Your task to perform on an android device: Go to eBay Image 0: 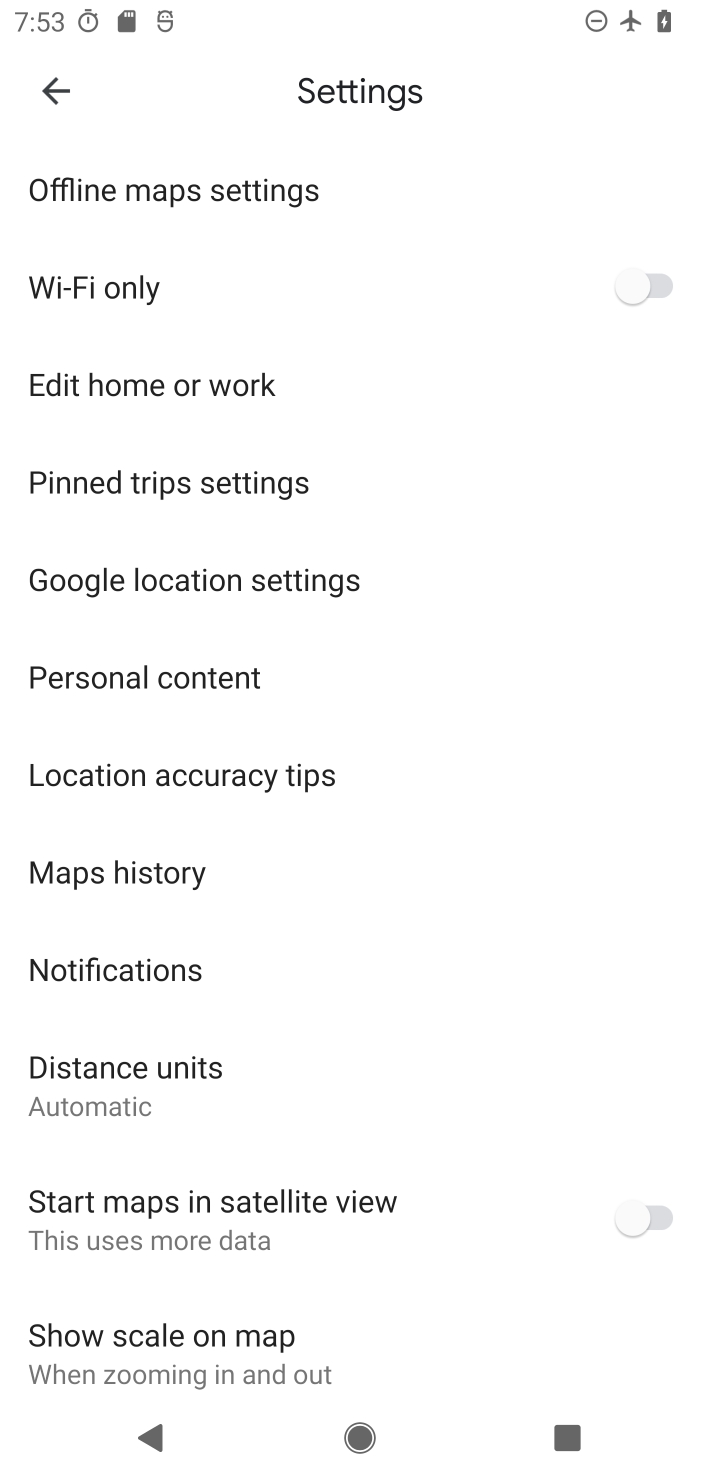
Step 0: press home button
Your task to perform on an android device: Go to eBay Image 1: 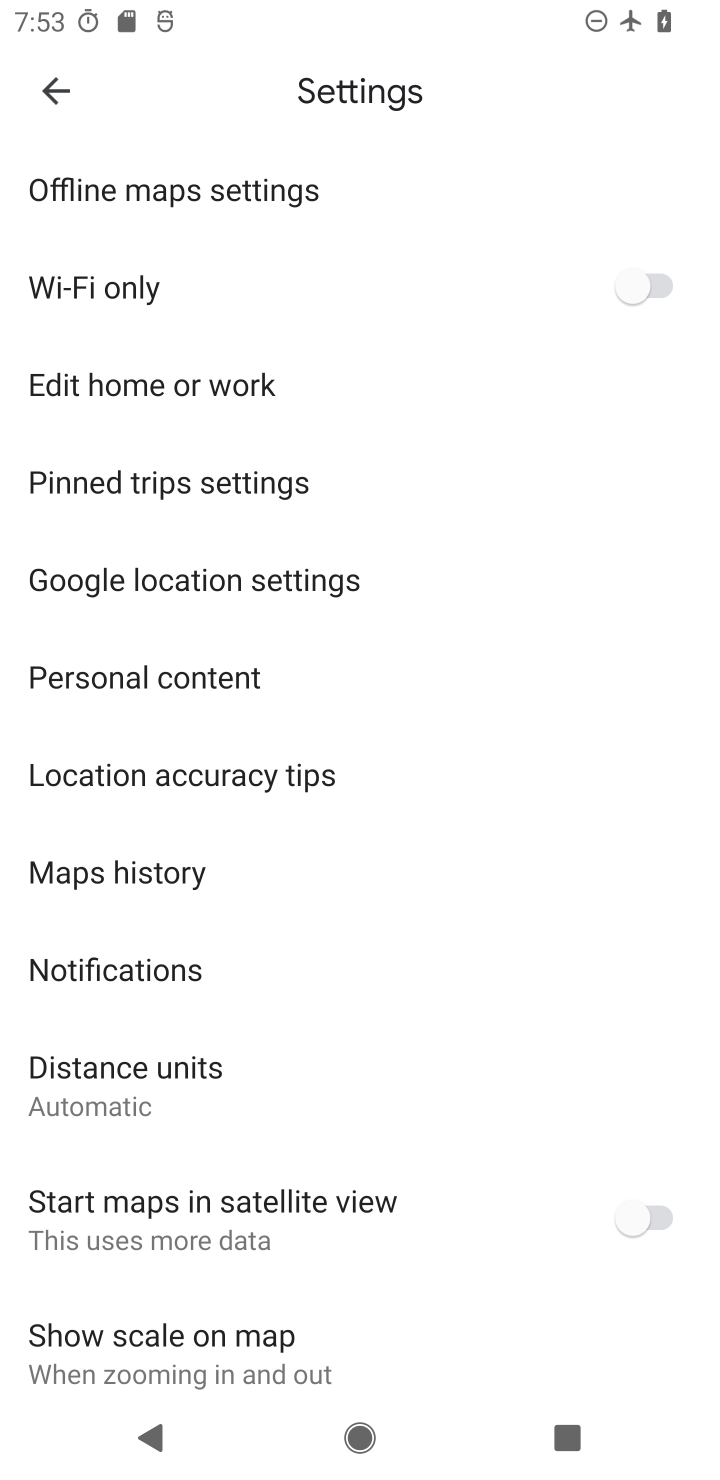
Step 1: press home button
Your task to perform on an android device: Go to eBay Image 2: 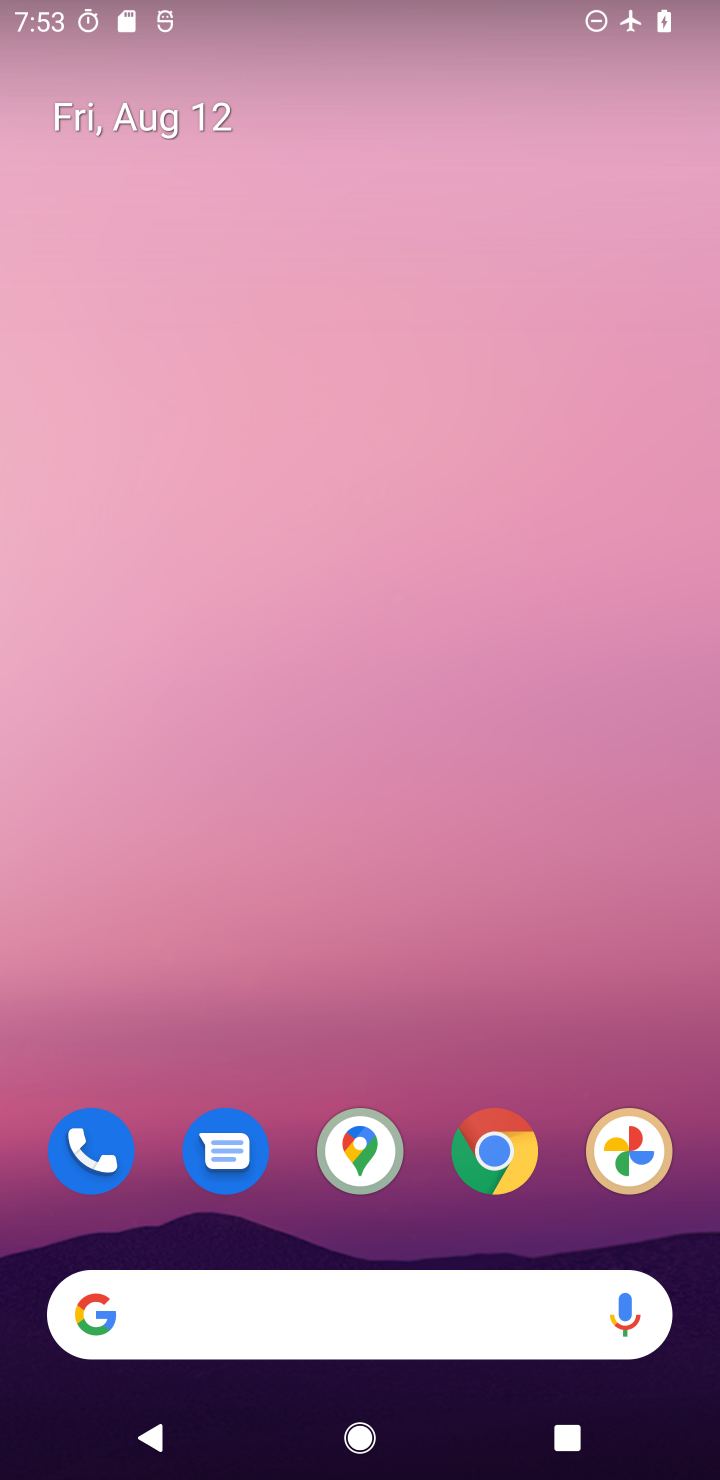
Step 2: drag from (426, 892) to (488, 54)
Your task to perform on an android device: Go to eBay Image 3: 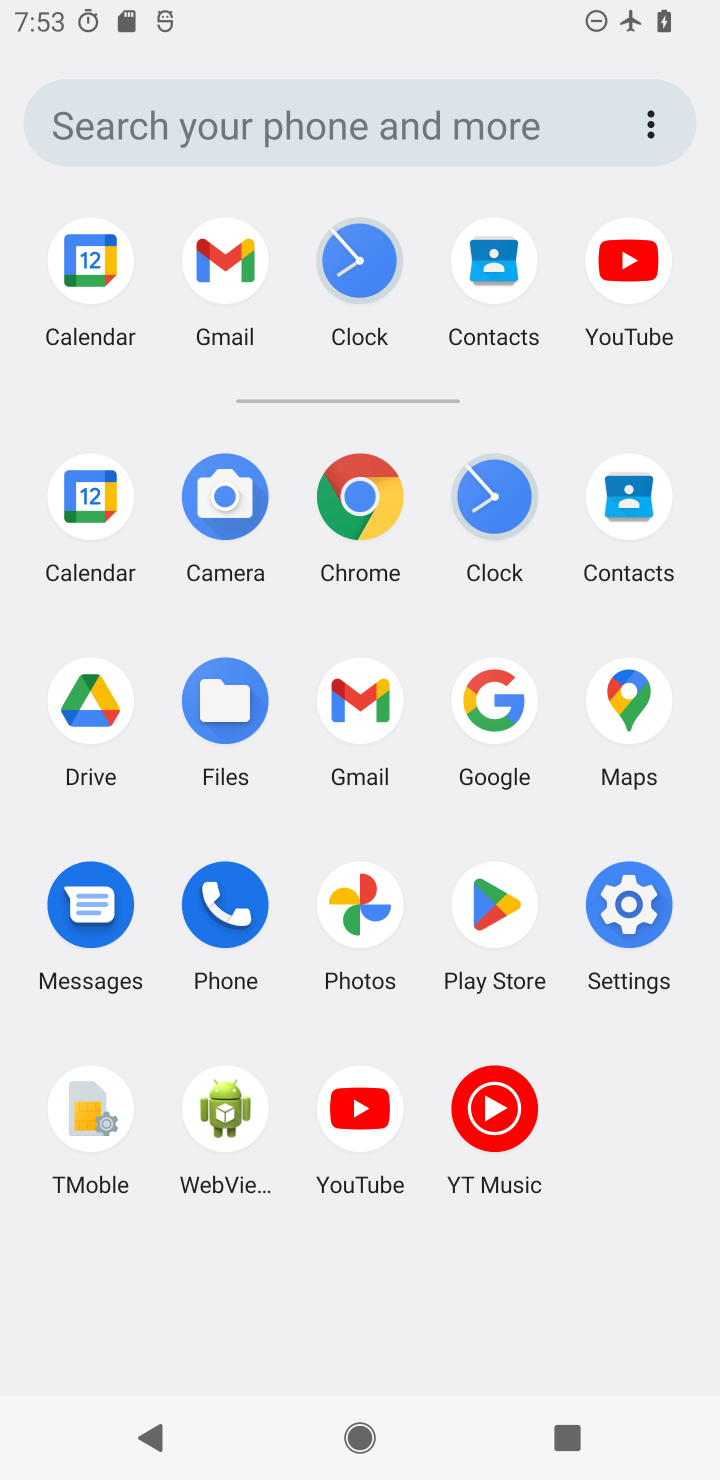
Step 3: click (366, 499)
Your task to perform on an android device: Go to eBay Image 4: 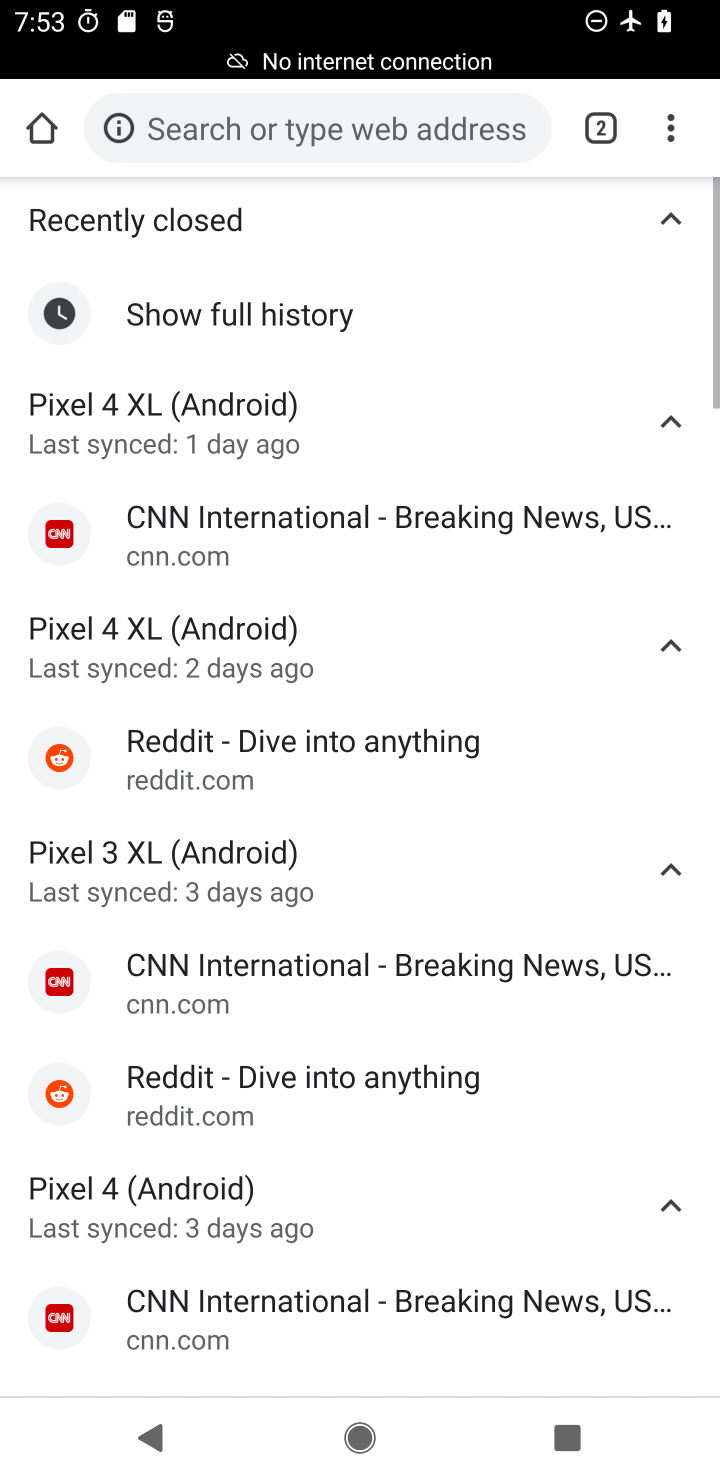
Step 4: click (401, 116)
Your task to perform on an android device: Go to eBay Image 5: 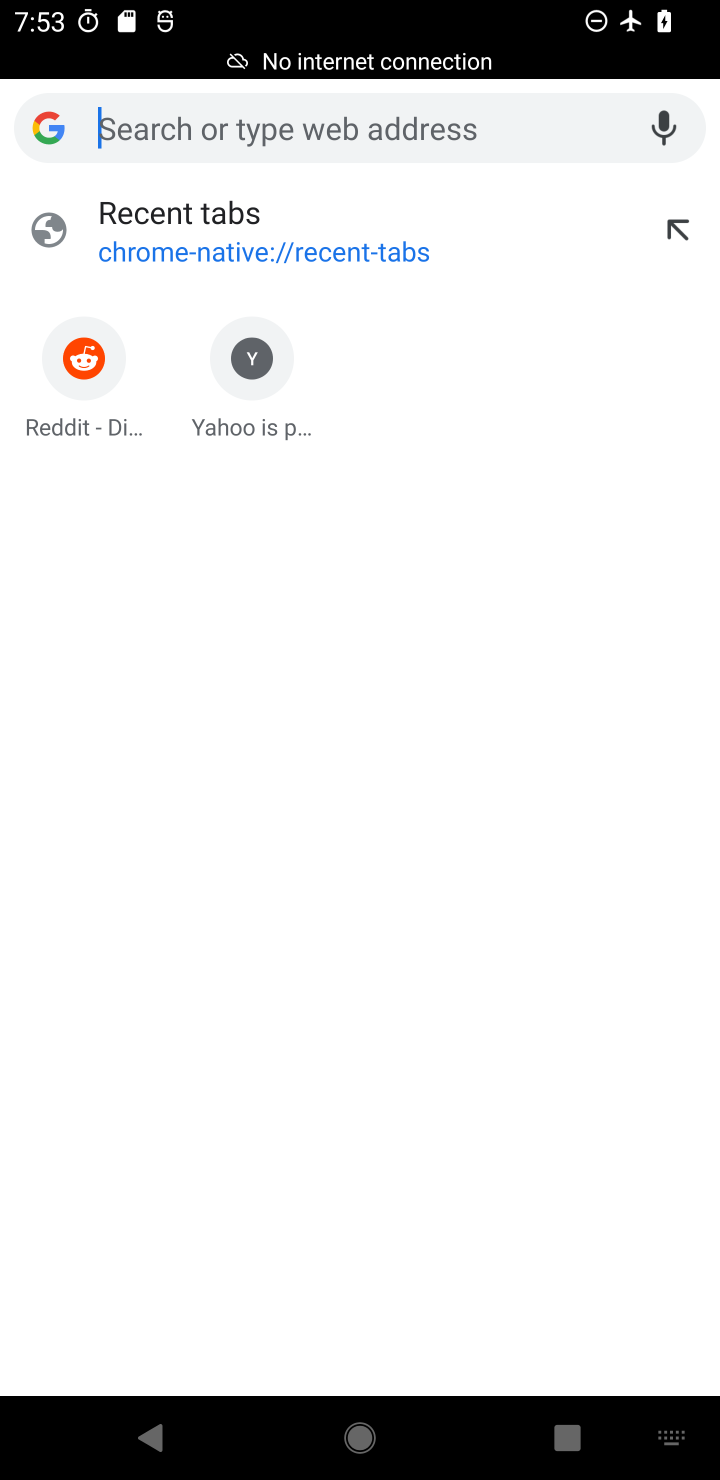
Step 5: type "ebay"
Your task to perform on an android device: Go to eBay Image 6: 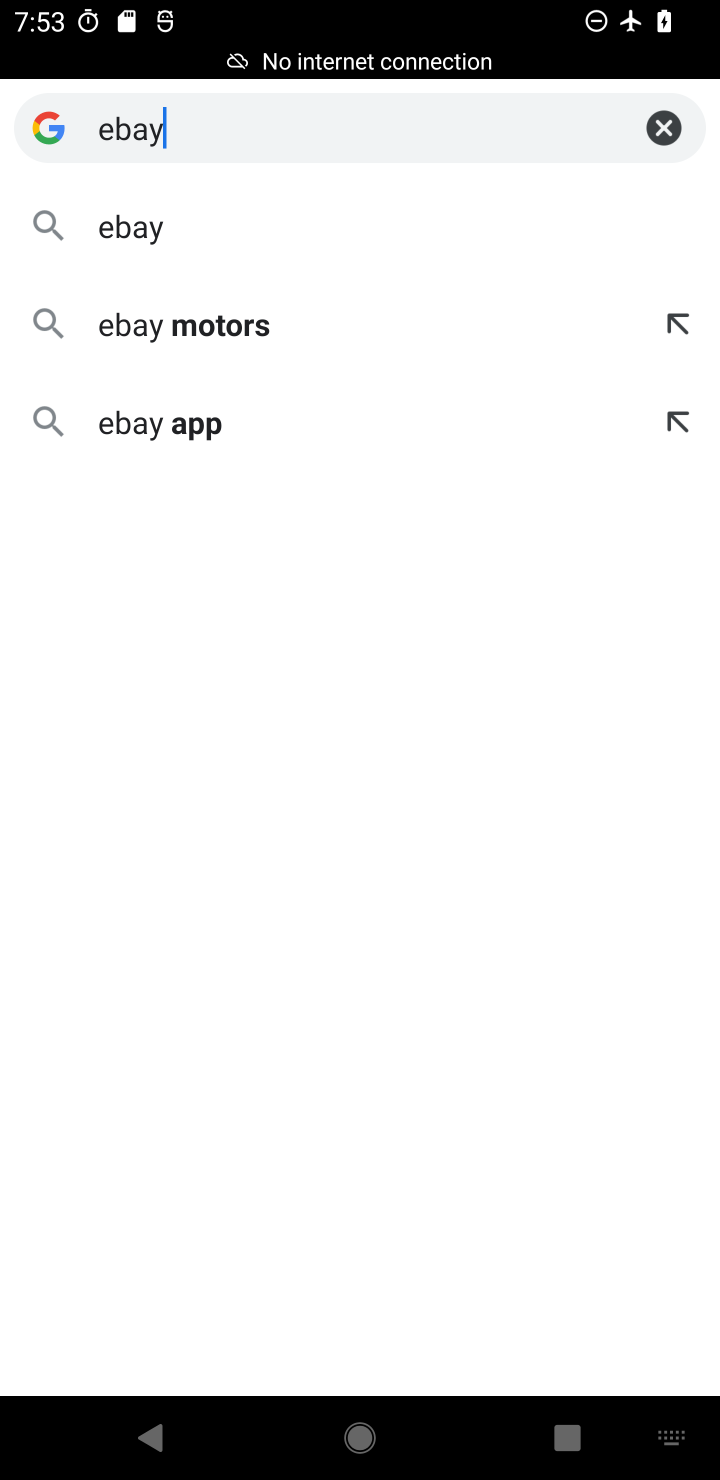
Step 6: click (142, 241)
Your task to perform on an android device: Go to eBay Image 7: 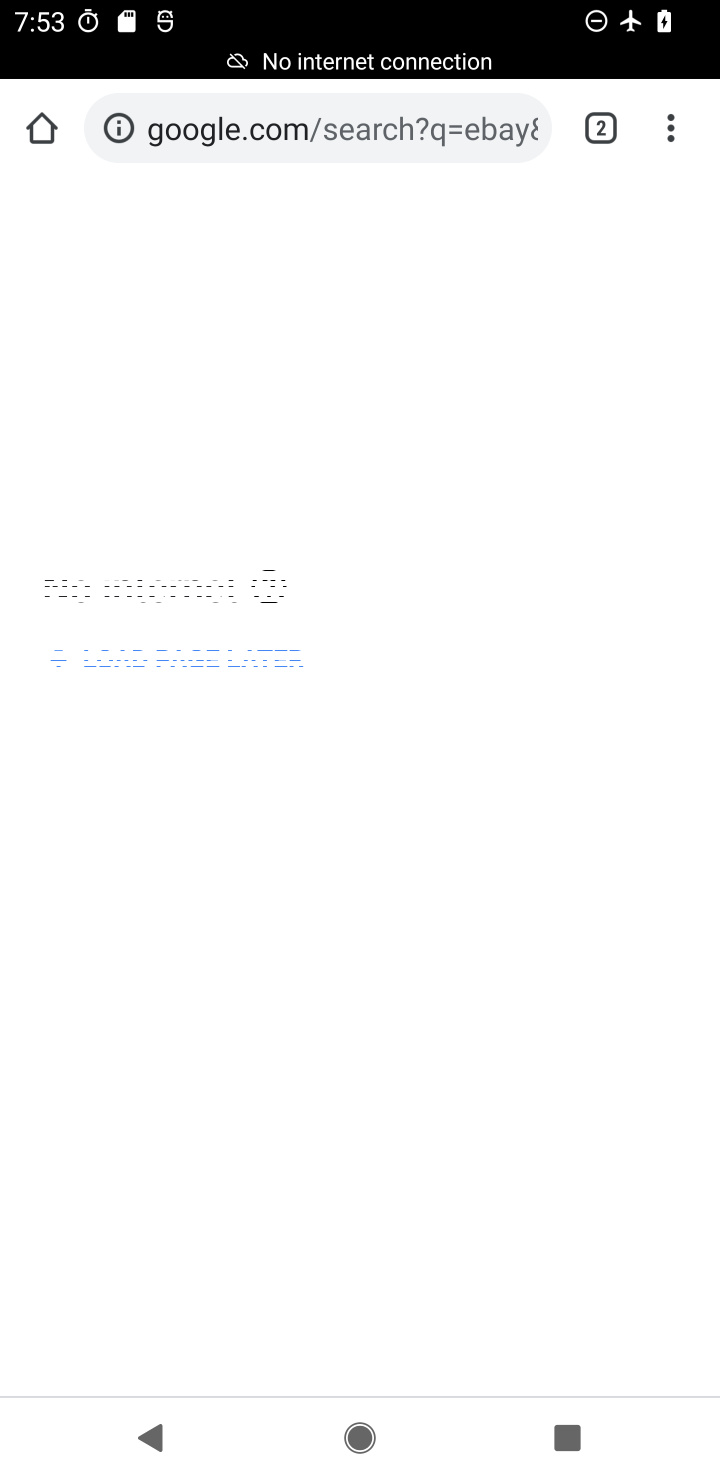
Step 7: task complete